Your task to perform on an android device: check battery use Image 0: 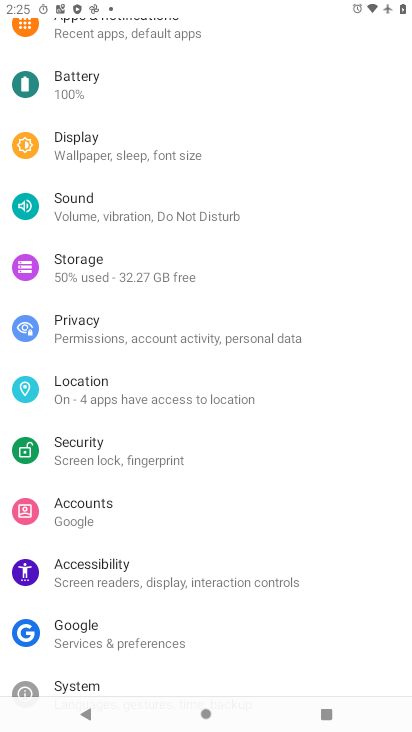
Step 0: click (74, 91)
Your task to perform on an android device: check battery use Image 1: 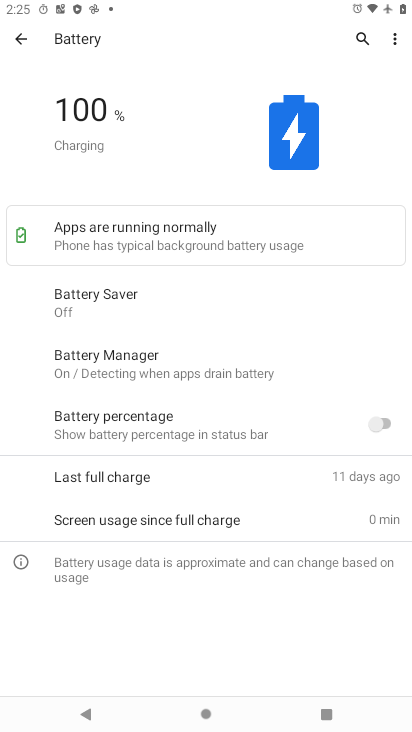
Step 1: click (393, 46)
Your task to perform on an android device: check battery use Image 2: 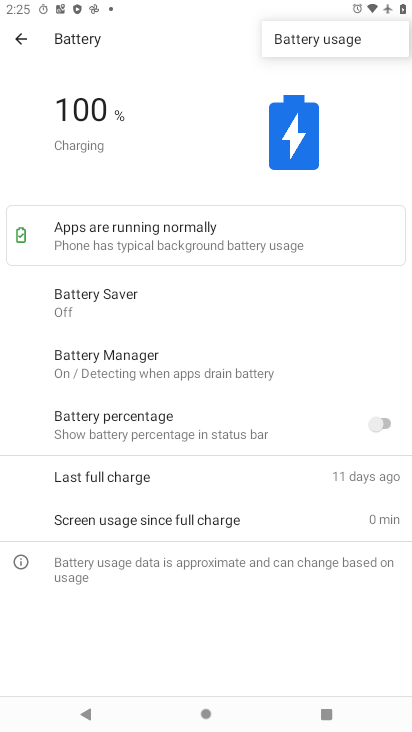
Step 2: click (338, 39)
Your task to perform on an android device: check battery use Image 3: 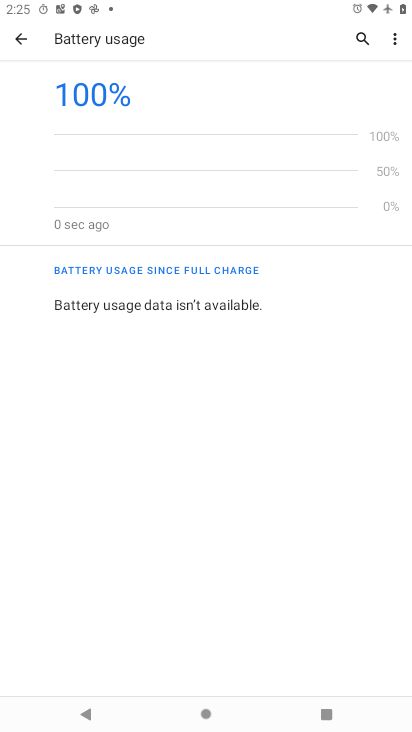
Step 3: task complete